Your task to perform on an android device: Is it going to rain this weekend? Image 0: 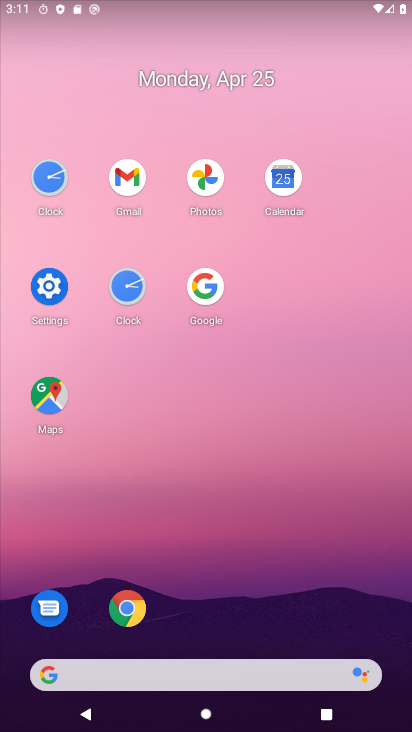
Step 0: click (218, 279)
Your task to perform on an android device: Is it going to rain this weekend? Image 1: 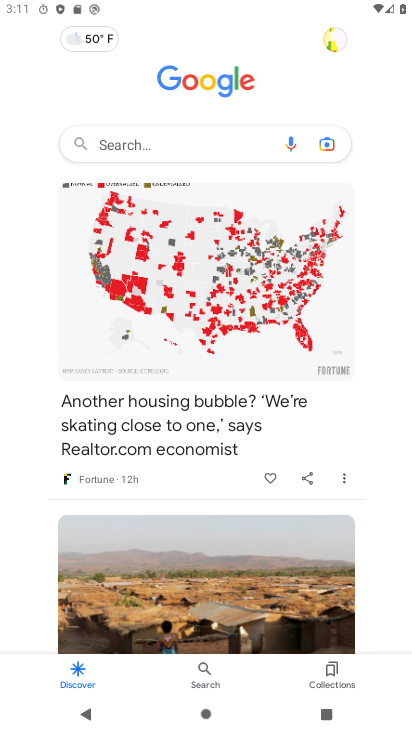
Step 1: click (137, 149)
Your task to perform on an android device: Is it going to rain this weekend? Image 2: 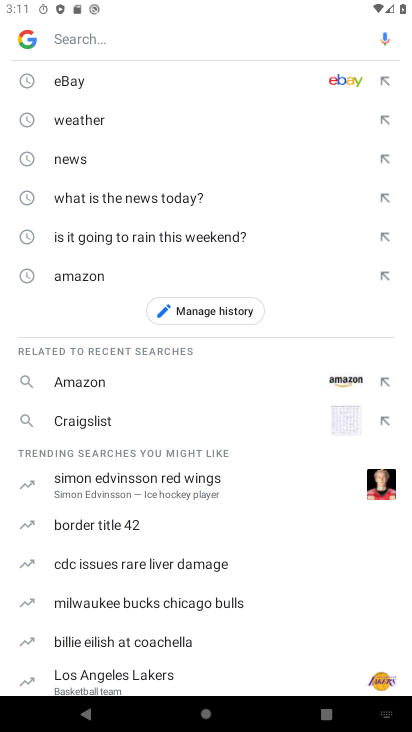
Step 2: click (111, 123)
Your task to perform on an android device: Is it going to rain this weekend? Image 3: 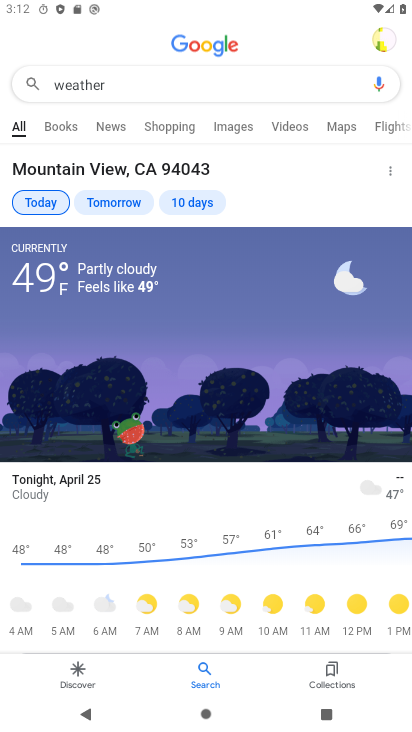
Step 3: task complete